Your task to perform on an android device: make emails show in primary in the gmail app Image 0: 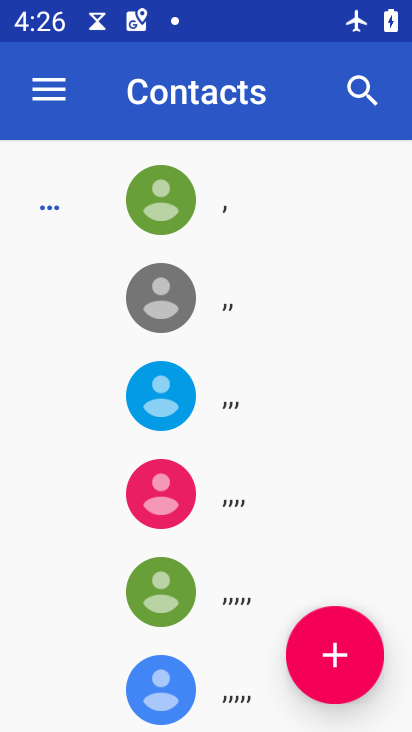
Step 0: press home button
Your task to perform on an android device: make emails show in primary in the gmail app Image 1: 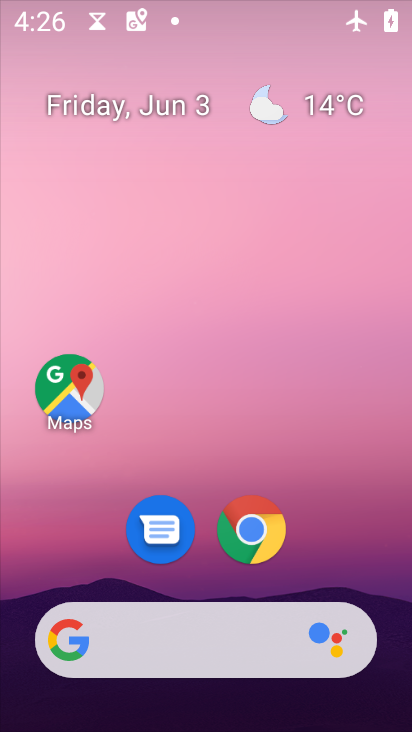
Step 1: drag from (323, 489) to (295, 72)
Your task to perform on an android device: make emails show in primary in the gmail app Image 2: 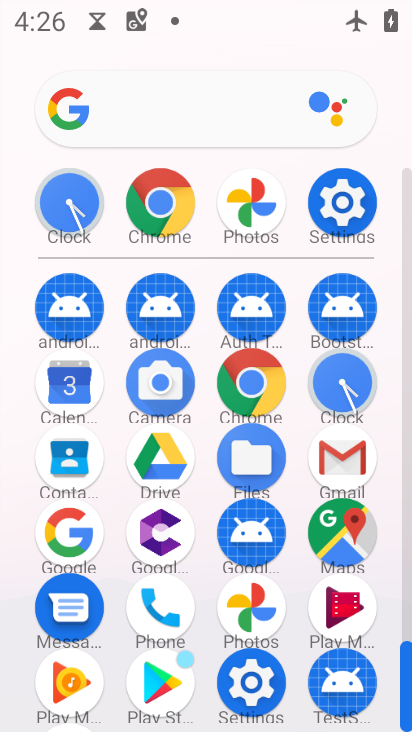
Step 2: click (334, 454)
Your task to perform on an android device: make emails show in primary in the gmail app Image 3: 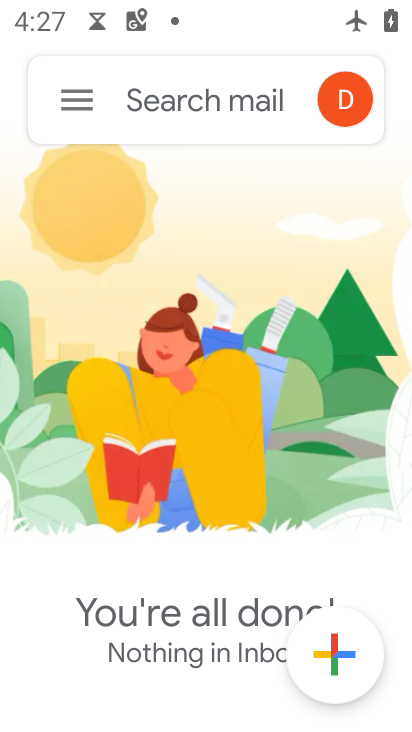
Step 3: click (77, 79)
Your task to perform on an android device: make emails show in primary in the gmail app Image 4: 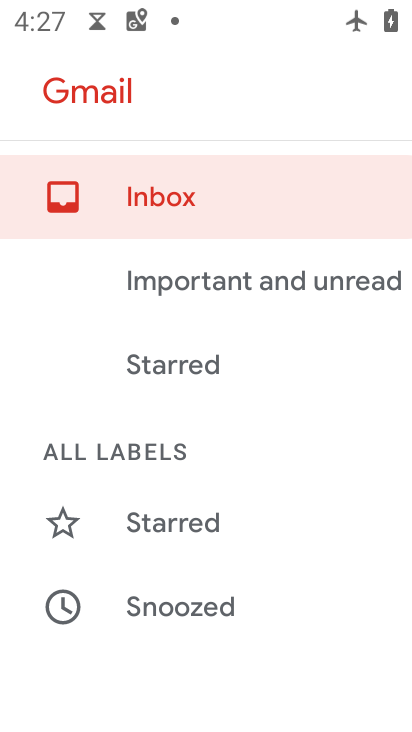
Step 4: drag from (174, 529) to (223, 74)
Your task to perform on an android device: make emails show in primary in the gmail app Image 5: 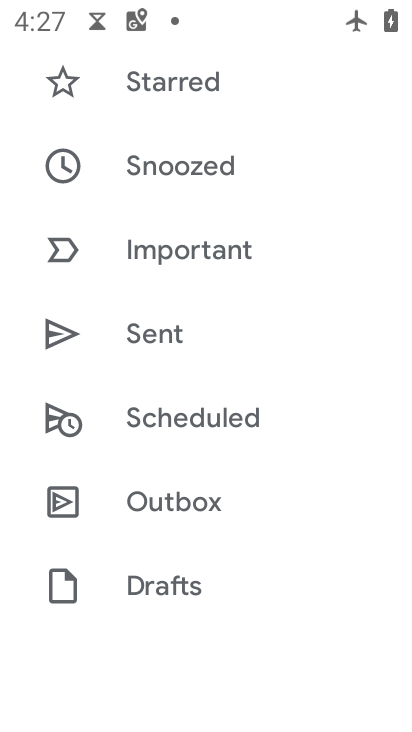
Step 5: drag from (196, 580) to (292, 55)
Your task to perform on an android device: make emails show in primary in the gmail app Image 6: 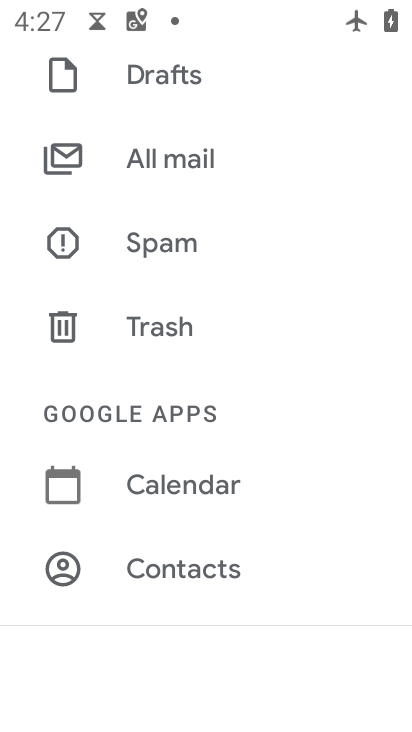
Step 6: click (211, 119)
Your task to perform on an android device: make emails show in primary in the gmail app Image 7: 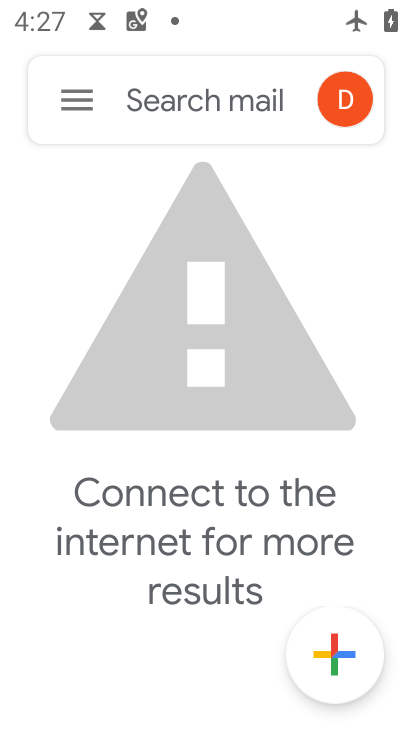
Step 7: task complete